Your task to perform on an android device: turn off location Image 0: 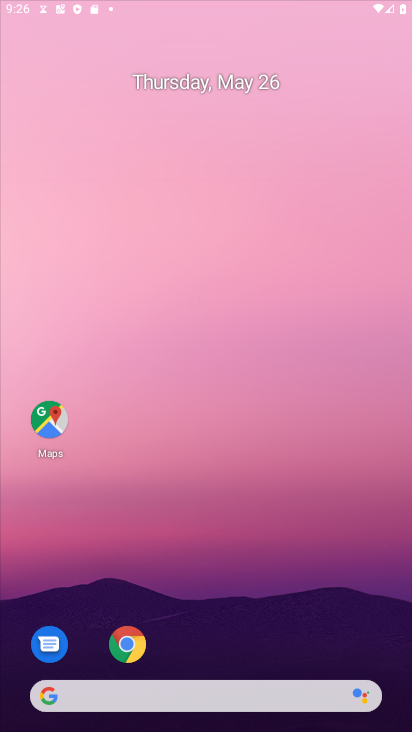
Step 0: click (225, 122)
Your task to perform on an android device: turn off location Image 1: 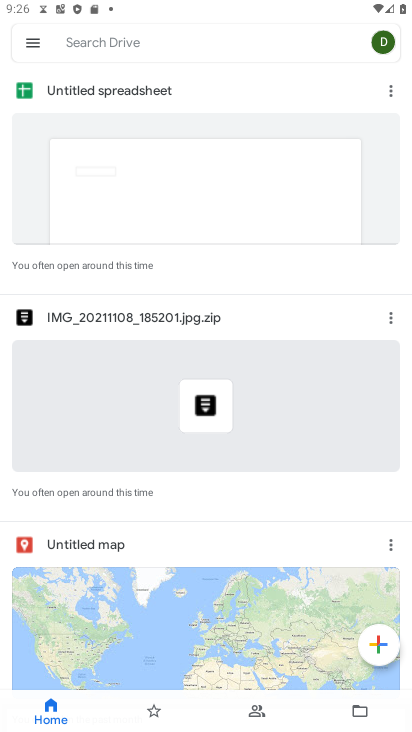
Step 1: press back button
Your task to perform on an android device: turn off location Image 2: 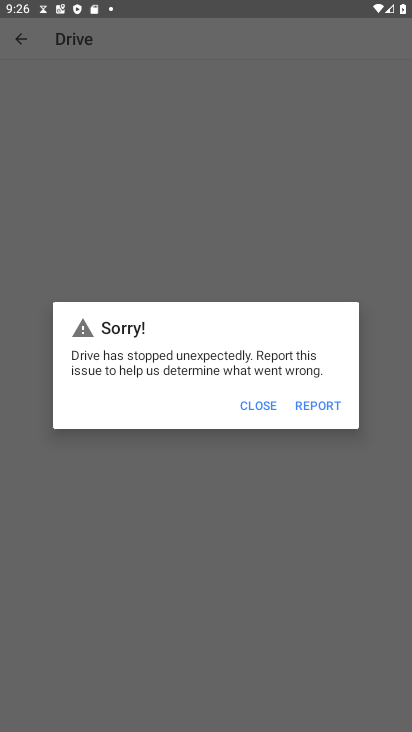
Step 2: press home button
Your task to perform on an android device: turn off location Image 3: 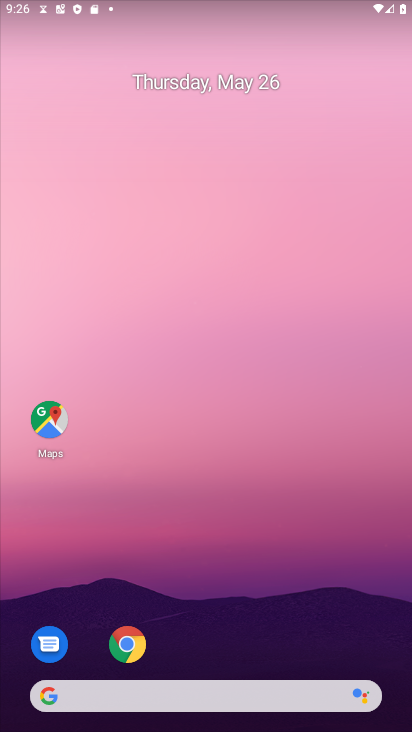
Step 3: drag from (234, 620) to (297, 123)
Your task to perform on an android device: turn off location Image 4: 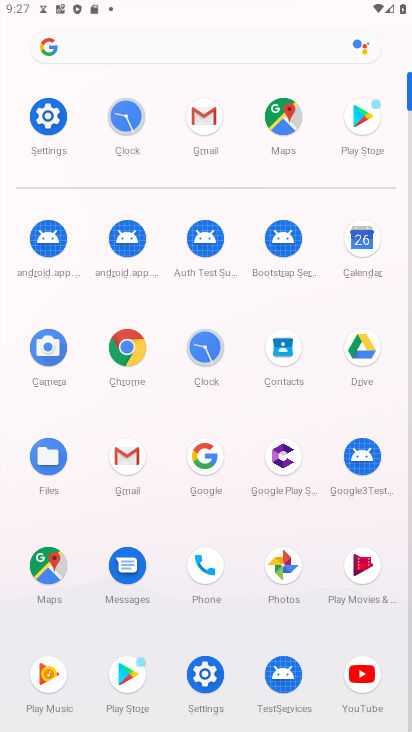
Step 4: click (48, 102)
Your task to perform on an android device: turn off location Image 5: 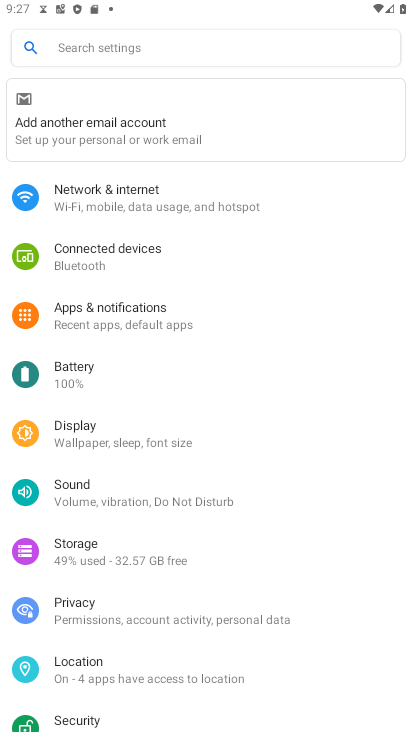
Step 5: click (82, 670)
Your task to perform on an android device: turn off location Image 6: 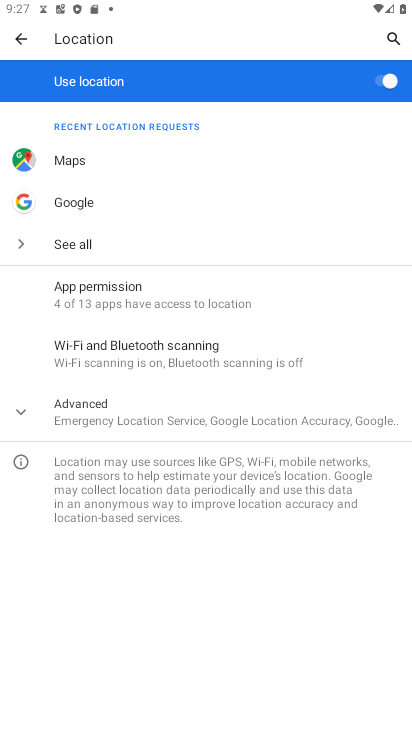
Step 6: click (389, 77)
Your task to perform on an android device: turn off location Image 7: 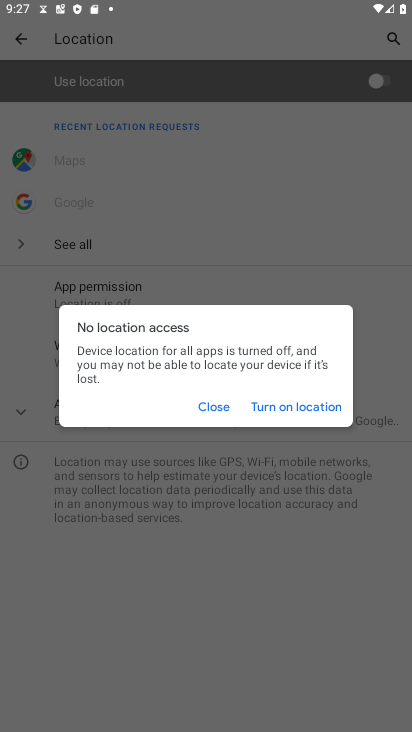
Step 7: task complete